Your task to perform on an android device: change the clock display to show seconds Image 0: 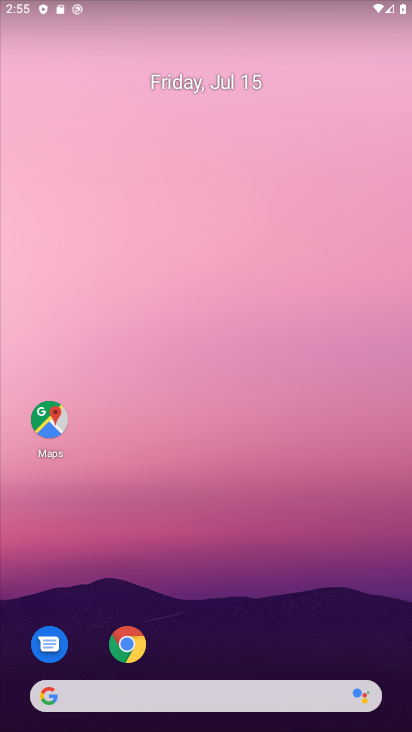
Step 0: drag from (242, 692) to (228, 91)
Your task to perform on an android device: change the clock display to show seconds Image 1: 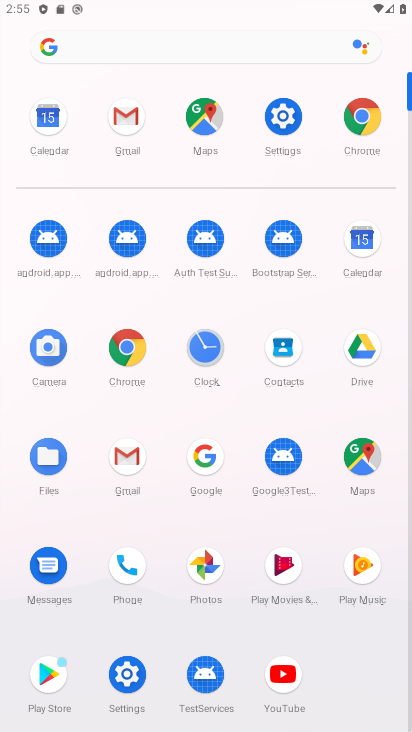
Step 1: click (204, 344)
Your task to perform on an android device: change the clock display to show seconds Image 2: 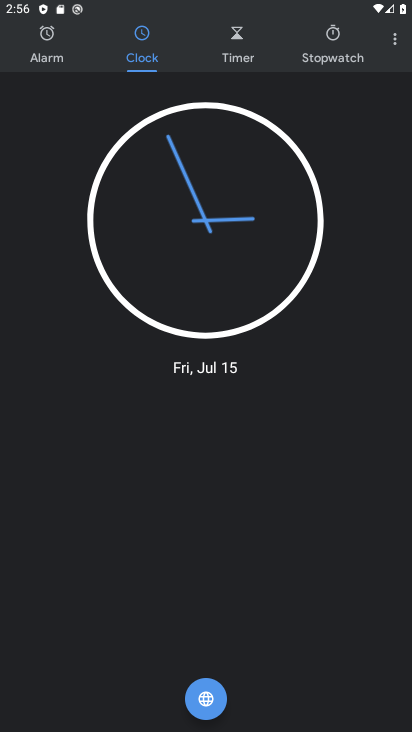
Step 2: click (391, 46)
Your task to perform on an android device: change the clock display to show seconds Image 3: 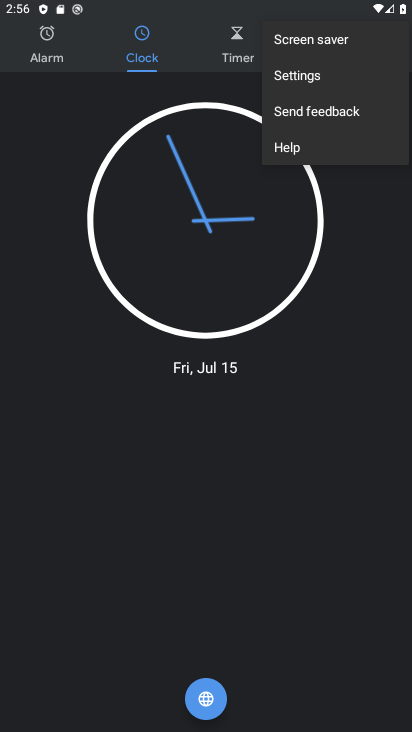
Step 3: click (316, 82)
Your task to perform on an android device: change the clock display to show seconds Image 4: 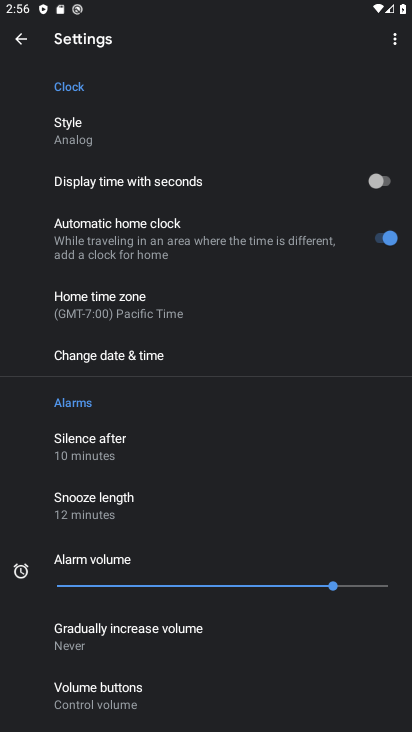
Step 4: click (391, 179)
Your task to perform on an android device: change the clock display to show seconds Image 5: 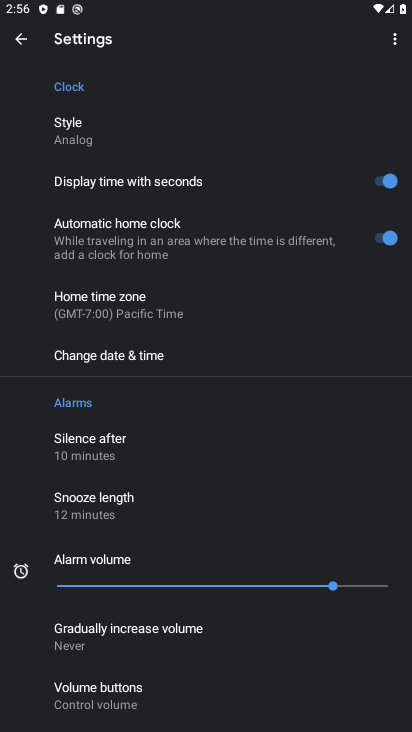
Step 5: task complete